Your task to perform on an android device: Open Google Maps and go to "Timeline" Image 0: 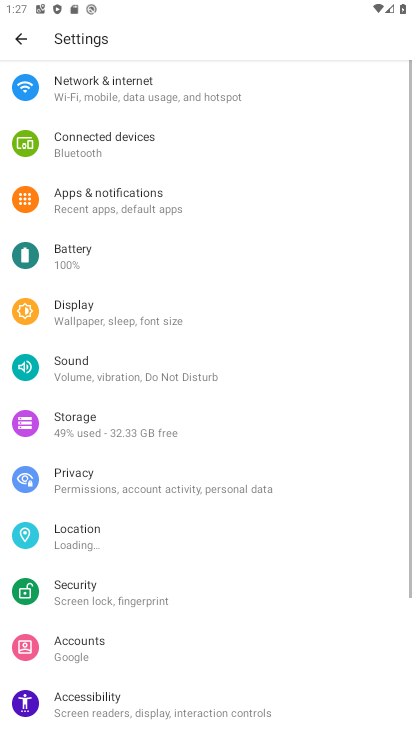
Step 0: press home button
Your task to perform on an android device: Open Google Maps and go to "Timeline" Image 1: 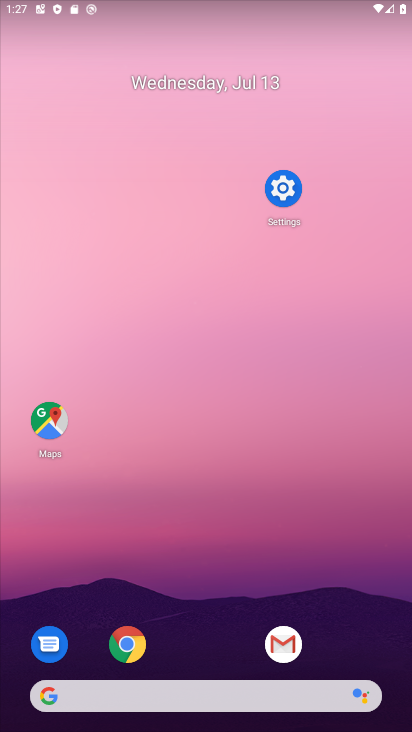
Step 1: click (54, 412)
Your task to perform on an android device: Open Google Maps and go to "Timeline" Image 2: 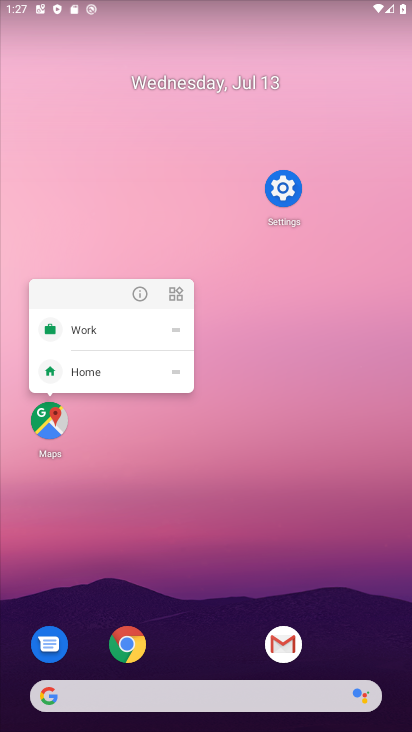
Step 2: click (52, 409)
Your task to perform on an android device: Open Google Maps and go to "Timeline" Image 3: 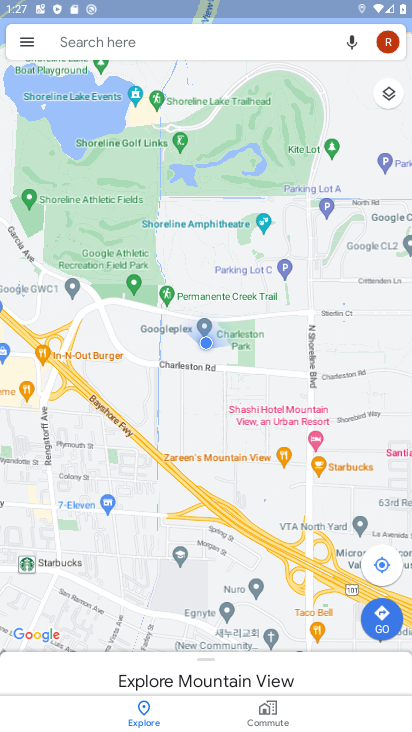
Step 3: click (19, 52)
Your task to perform on an android device: Open Google Maps and go to "Timeline" Image 4: 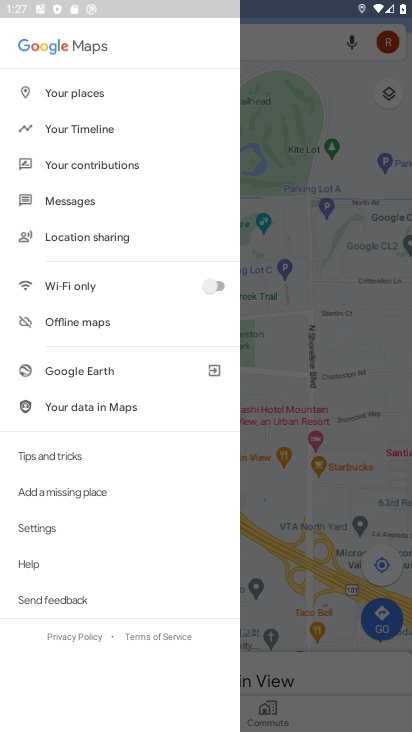
Step 4: click (77, 123)
Your task to perform on an android device: Open Google Maps and go to "Timeline" Image 5: 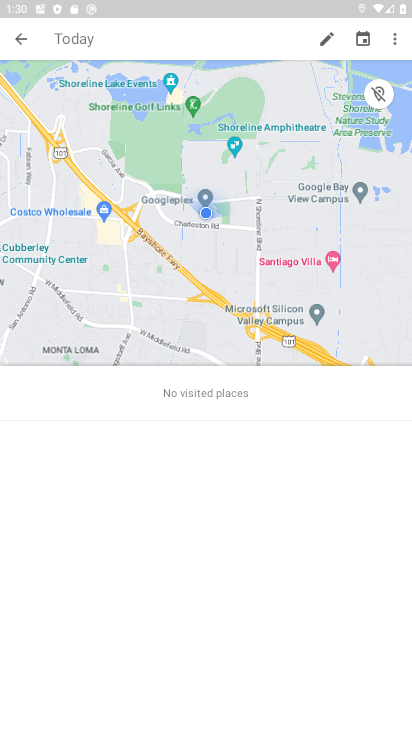
Step 5: task complete